Your task to perform on an android device: Open maps Image 0: 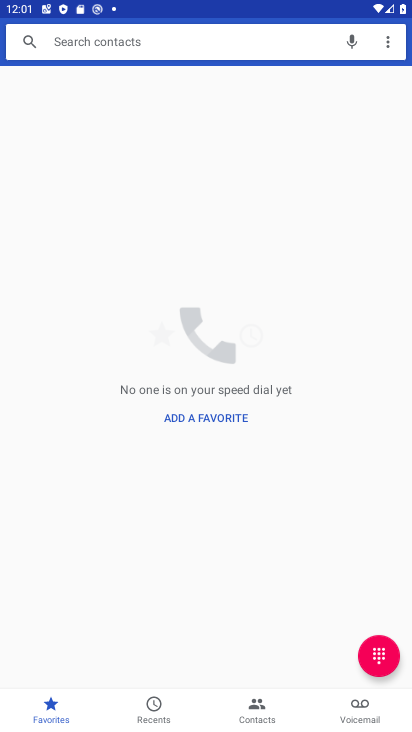
Step 0: press home button
Your task to perform on an android device: Open maps Image 1: 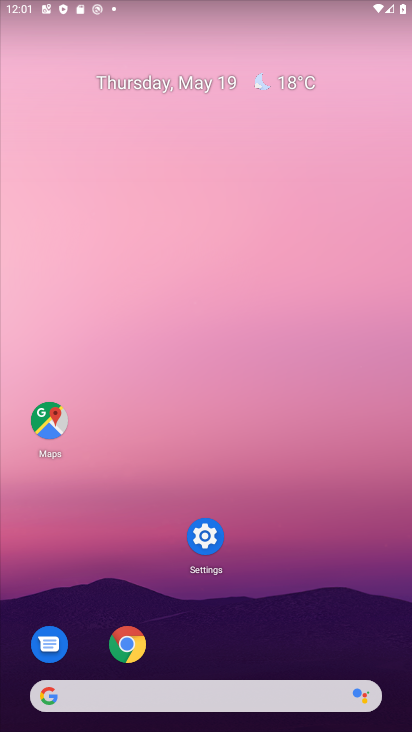
Step 1: click (56, 422)
Your task to perform on an android device: Open maps Image 2: 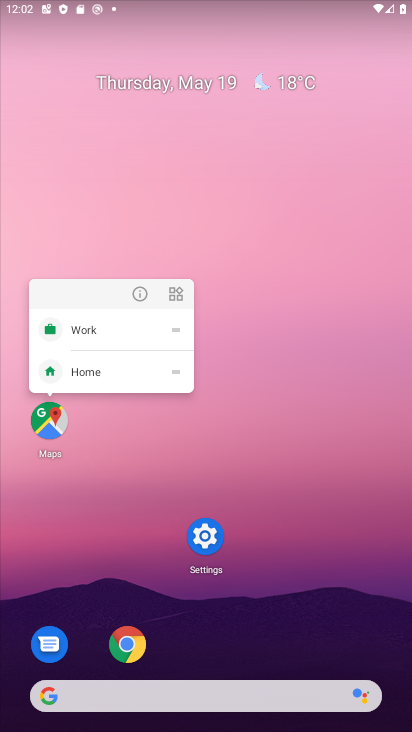
Step 2: click (56, 415)
Your task to perform on an android device: Open maps Image 3: 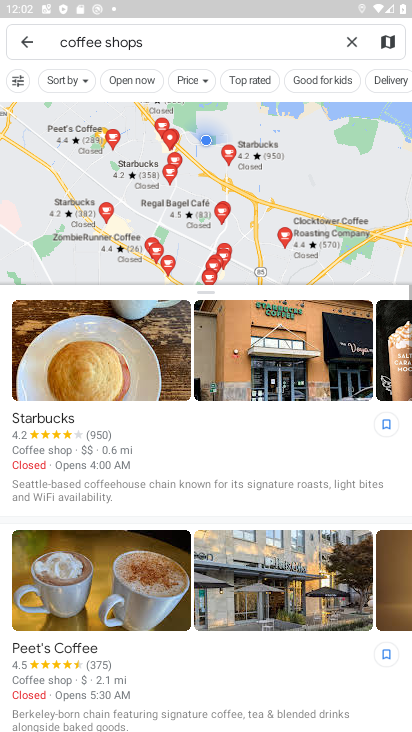
Step 3: task complete